Your task to perform on an android device: Open settings on Google Maps Image 0: 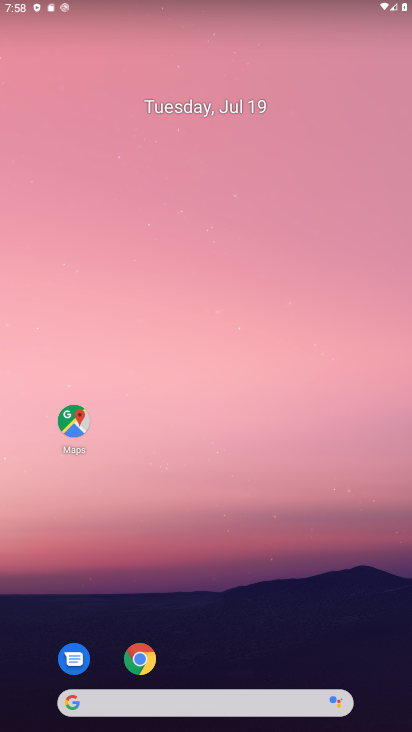
Step 0: click (84, 435)
Your task to perform on an android device: Open settings on Google Maps Image 1: 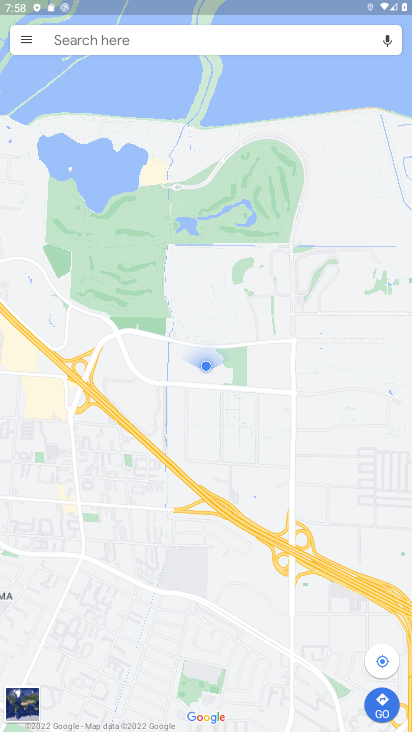
Step 1: click (19, 35)
Your task to perform on an android device: Open settings on Google Maps Image 2: 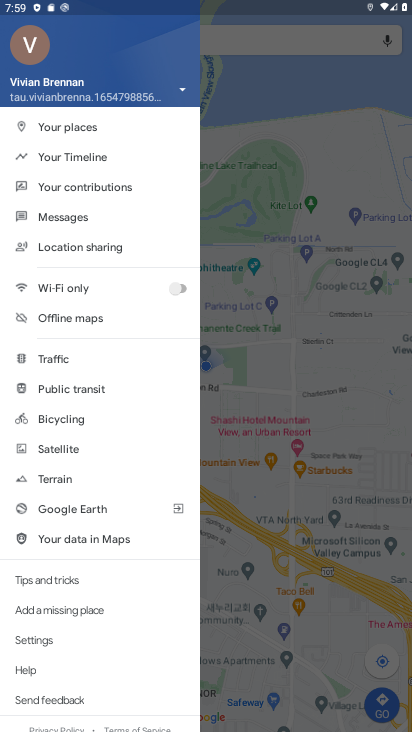
Step 2: click (62, 640)
Your task to perform on an android device: Open settings on Google Maps Image 3: 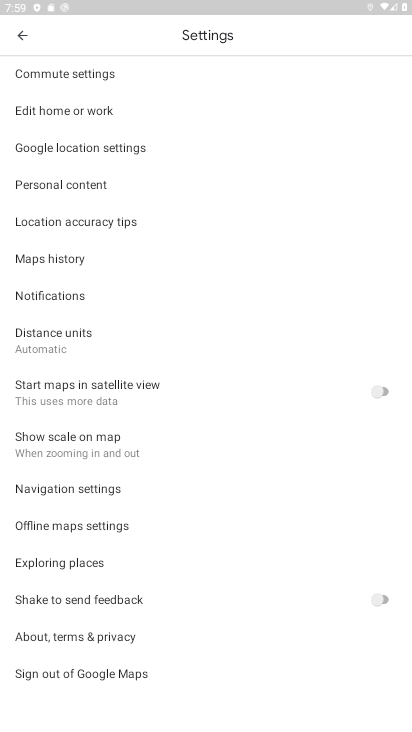
Step 3: task complete